Your task to perform on an android device: Go to eBay Image 0: 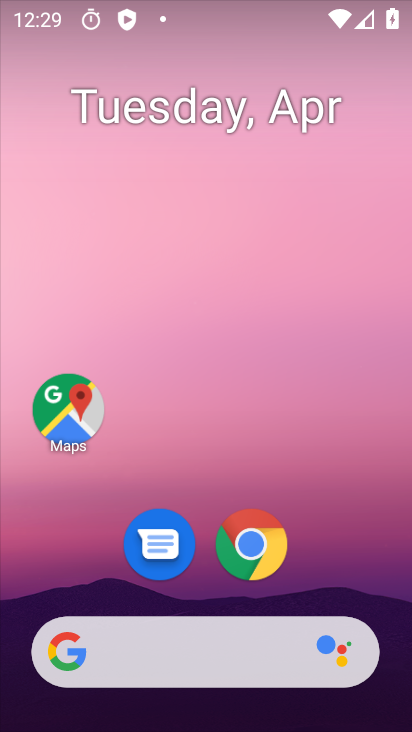
Step 0: click (247, 546)
Your task to perform on an android device: Go to eBay Image 1: 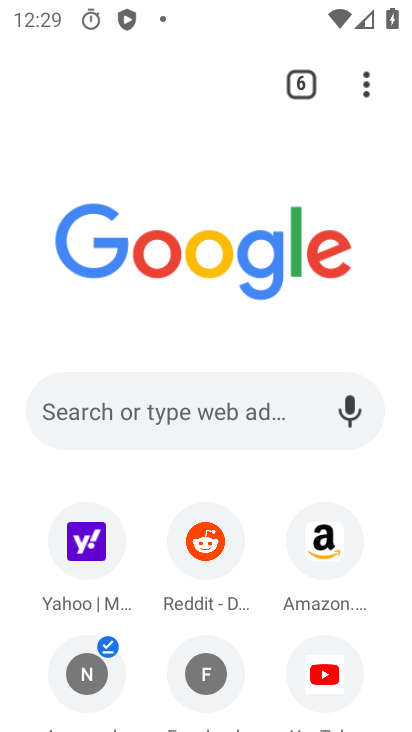
Step 1: drag from (394, 609) to (395, 486)
Your task to perform on an android device: Go to eBay Image 2: 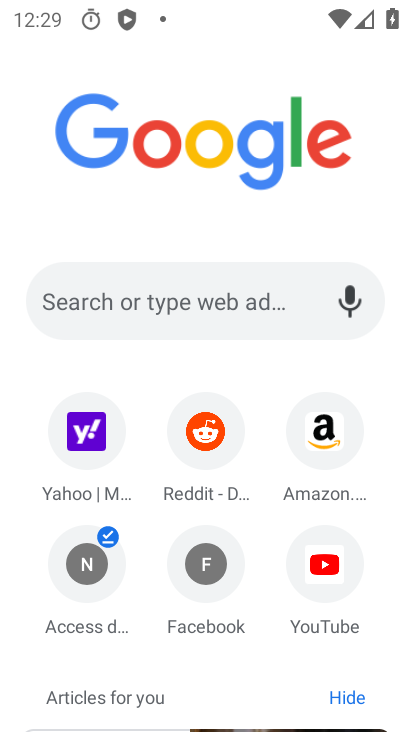
Step 2: drag from (401, 541) to (388, 440)
Your task to perform on an android device: Go to eBay Image 3: 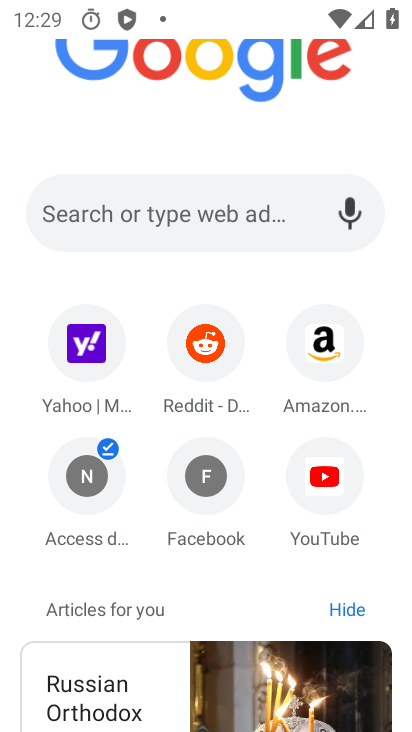
Step 3: click (113, 213)
Your task to perform on an android device: Go to eBay Image 4: 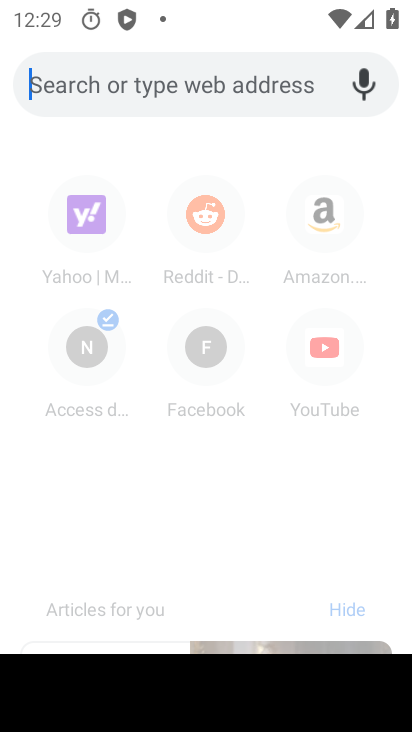
Step 4: type "ebay"
Your task to perform on an android device: Go to eBay Image 5: 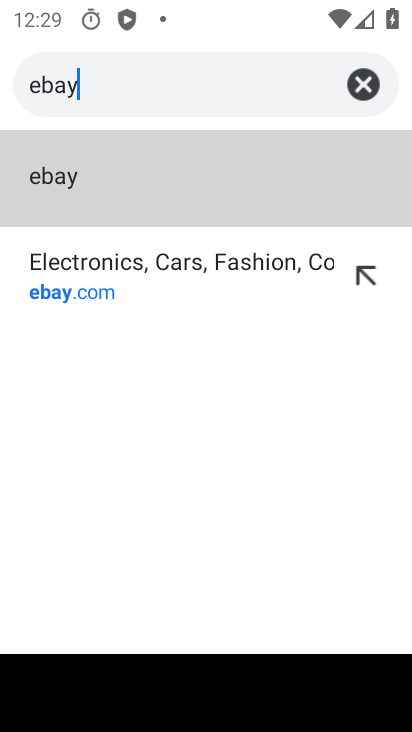
Step 5: click (65, 178)
Your task to perform on an android device: Go to eBay Image 6: 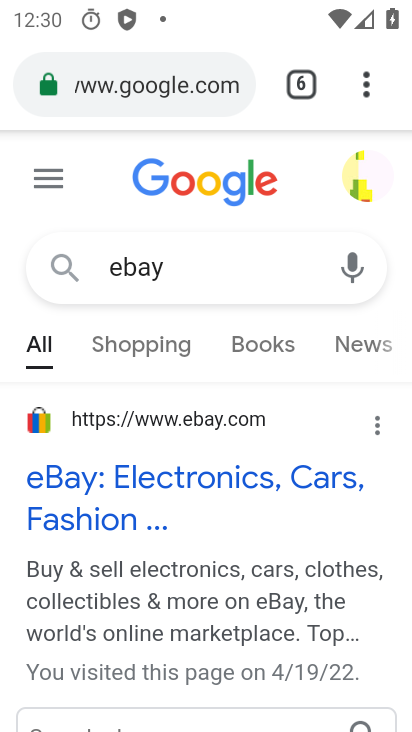
Step 6: click (87, 483)
Your task to perform on an android device: Go to eBay Image 7: 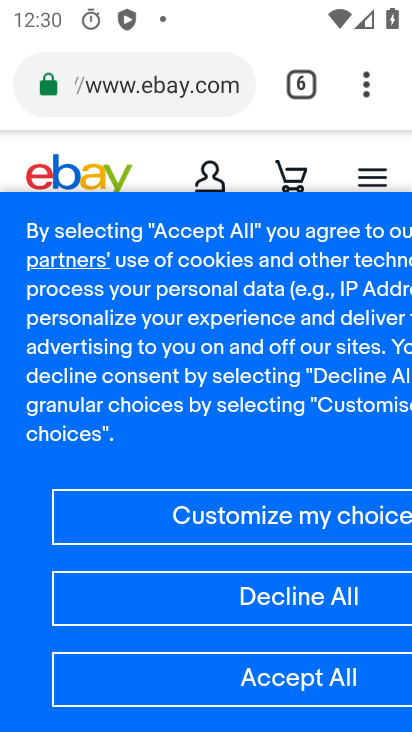
Step 7: task complete